Your task to perform on an android device: check battery use Image 0: 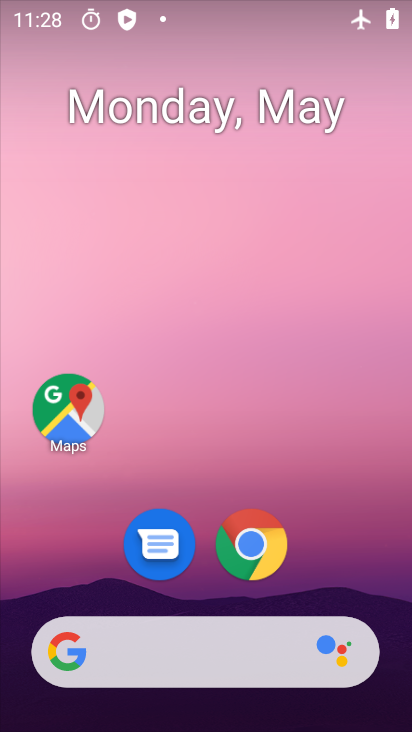
Step 0: drag from (396, 581) to (398, 218)
Your task to perform on an android device: check battery use Image 1: 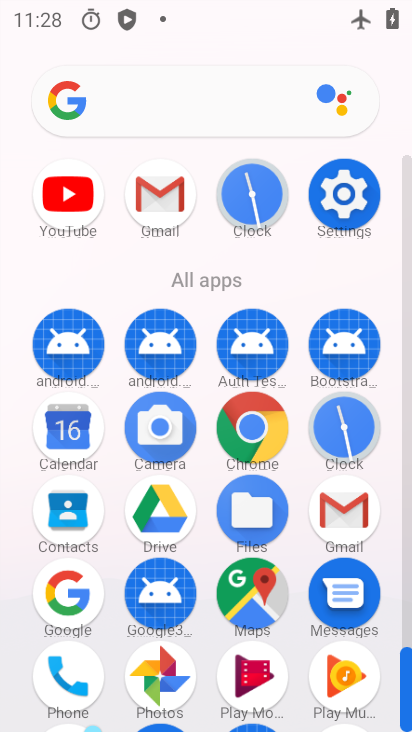
Step 1: click (336, 201)
Your task to perform on an android device: check battery use Image 2: 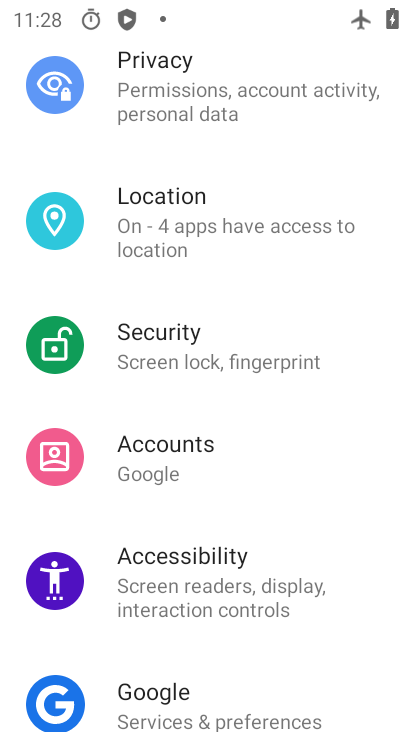
Step 2: drag from (252, 164) to (309, 538)
Your task to perform on an android device: check battery use Image 3: 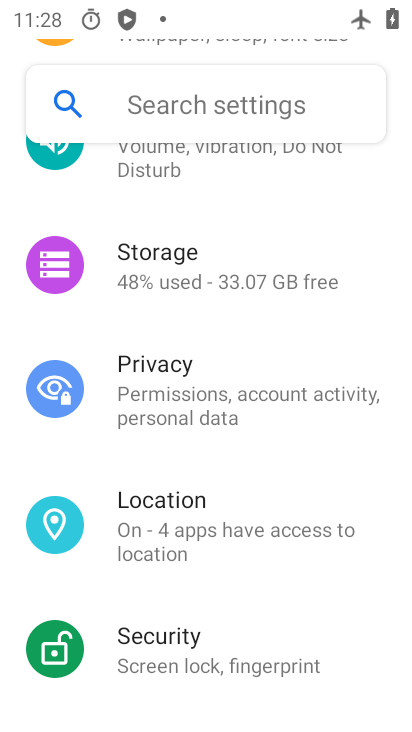
Step 3: drag from (188, 243) to (292, 595)
Your task to perform on an android device: check battery use Image 4: 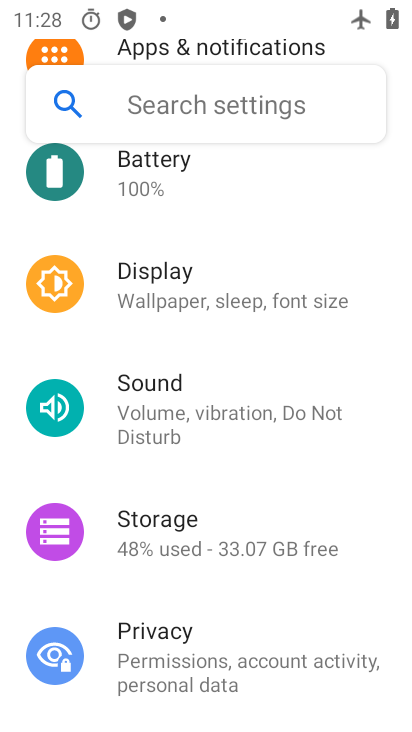
Step 4: drag from (194, 243) to (293, 558)
Your task to perform on an android device: check battery use Image 5: 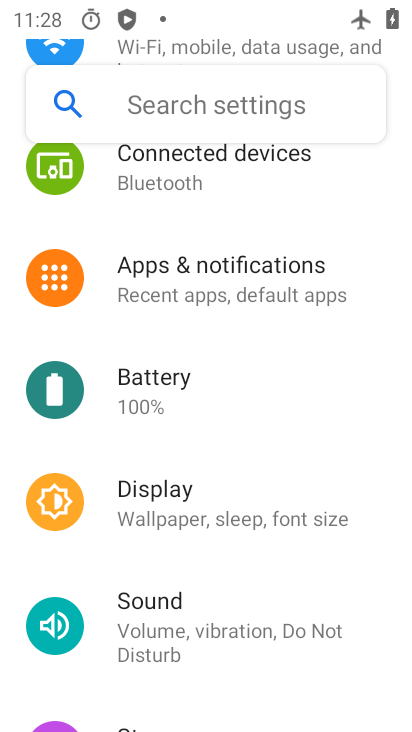
Step 5: click (164, 373)
Your task to perform on an android device: check battery use Image 6: 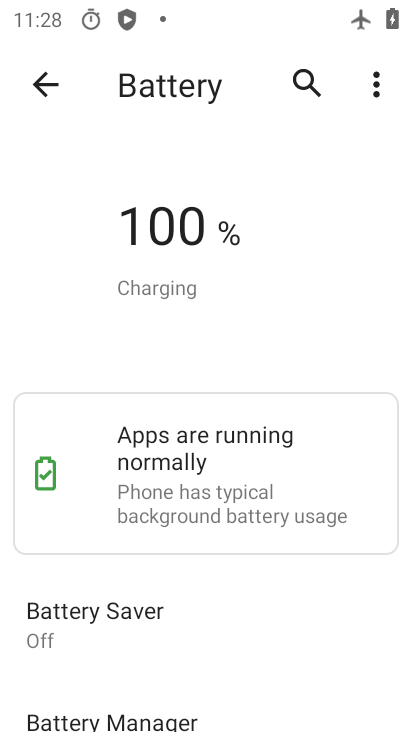
Step 6: click (375, 87)
Your task to perform on an android device: check battery use Image 7: 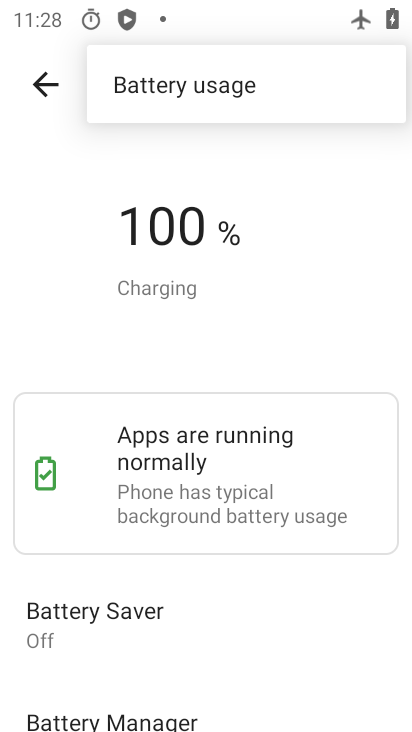
Step 7: click (266, 86)
Your task to perform on an android device: check battery use Image 8: 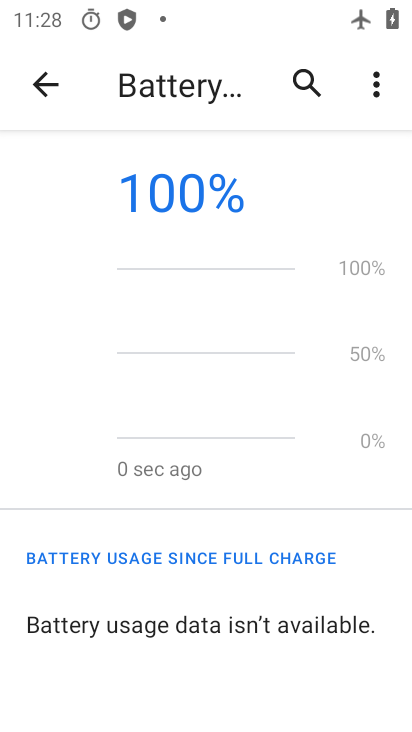
Step 8: task complete